Your task to perform on an android device: Open Youtube and go to the subscriptions tab Image 0: 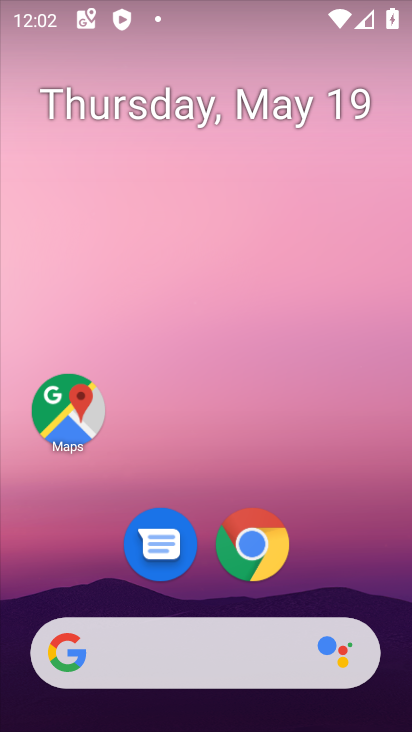
Step 0: drag from (217, 637) to (153, 143)
Your task to perform on an android device: Open Youtube and go to the subscriptions tab Image 1: 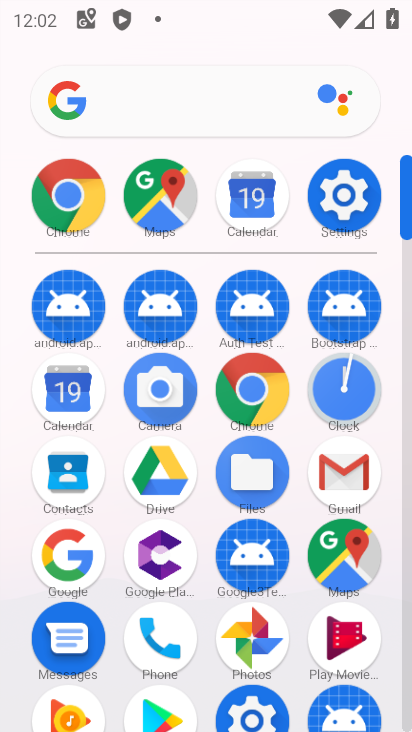
Step 1: click (406, 390)
Your task to perform on an android device: Open Youtube and go to the subscriptions tab Image 2: 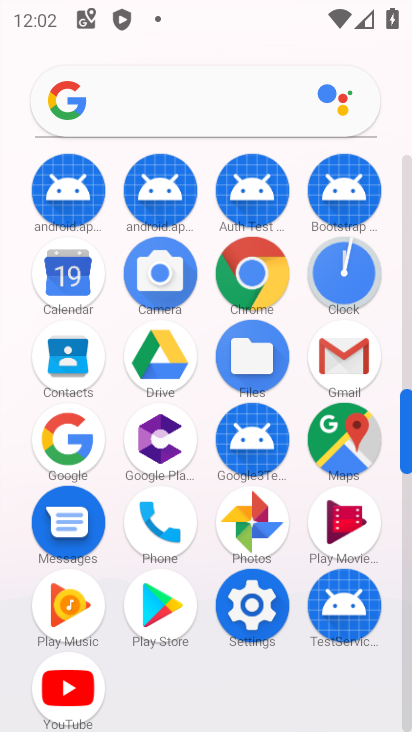
Step 2: click (70, 685)
Your task to perform on an android device: Open Youtube and go to the subscriptions tab Image 3: 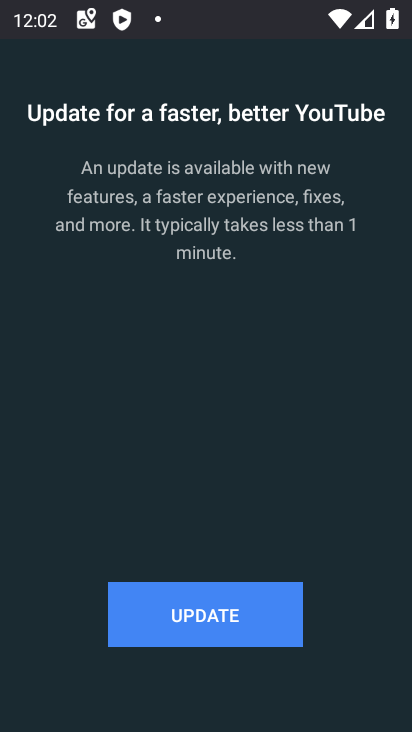
Step 3: click (235, 618)
Your task to perform on an android device: Open Youtube and go to the subscriptions tab Image 4: 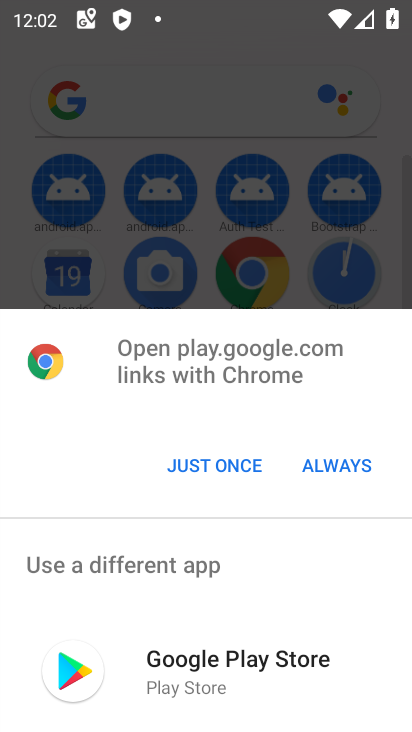
Step 4: click (240, 663)
Your task to perform on an android device: Open Youtube and go to the subscriptions tab Image 5: 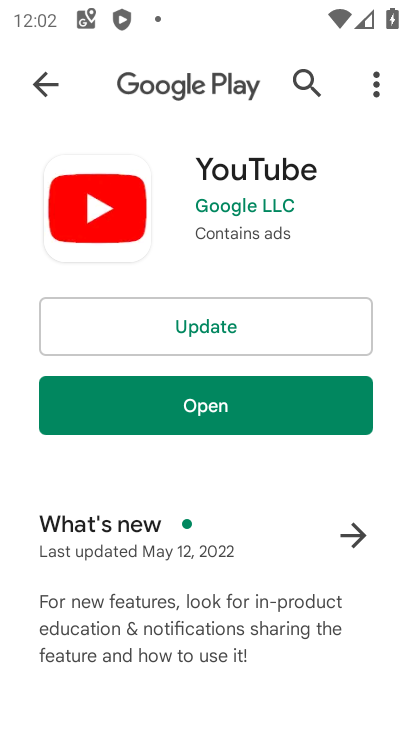
Step 5: click (255, 330)
Your task to perform on an android device: Open Youtube and go to the subscriptions tab Image 6: 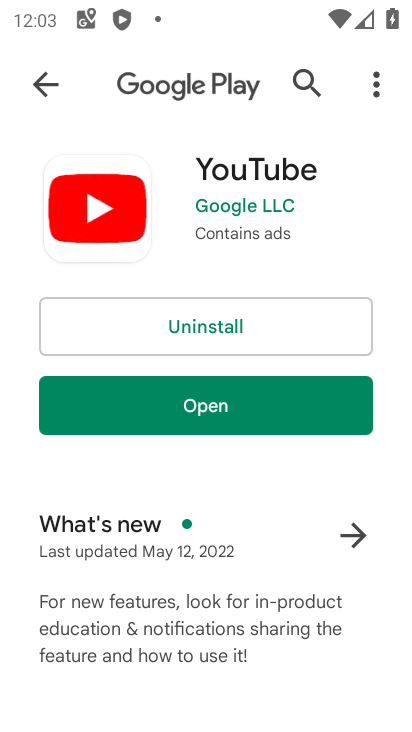
Step 6: click (193, 406)
Your task to perform on an android device: Open Youtube and go to the subscriptions tab Image 7: 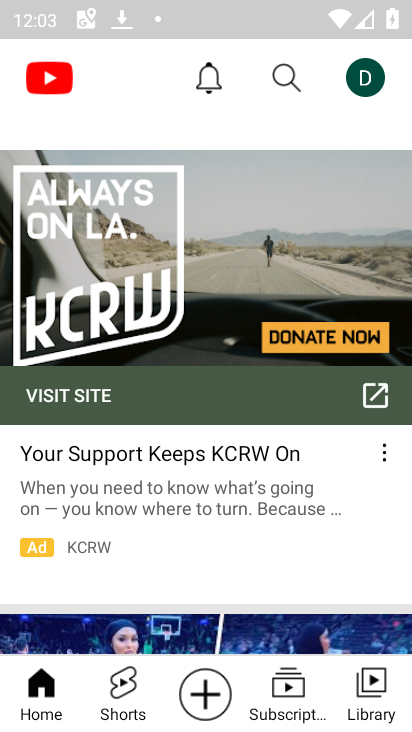
Step 7: click (295, 703)
Your task to perform on an android device: Open Youtube and go to the subscriptions tab Image 8: 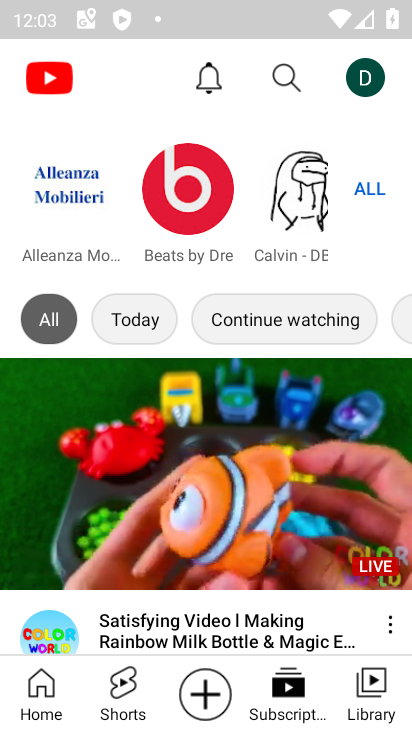
Step 8: click (369, 86)
Your task to perform on an android device: Open Youtube and go to the subscriptions tab Image 9: 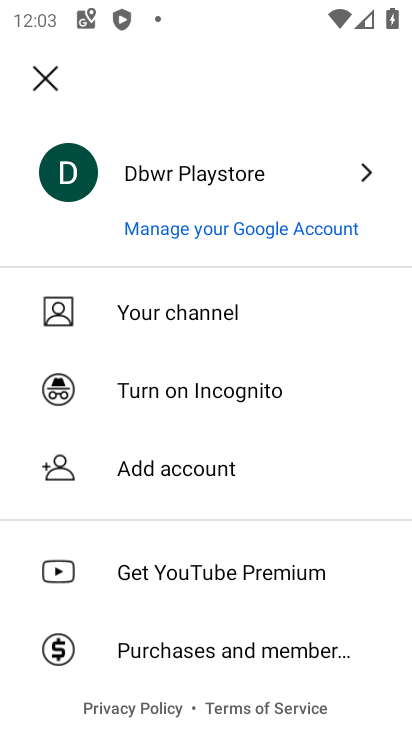
Step 9: drag from (375, 579) to (333, 267)
Your task to perform on an android device: Open Youtube and go to the subscriptions tab Image 10: 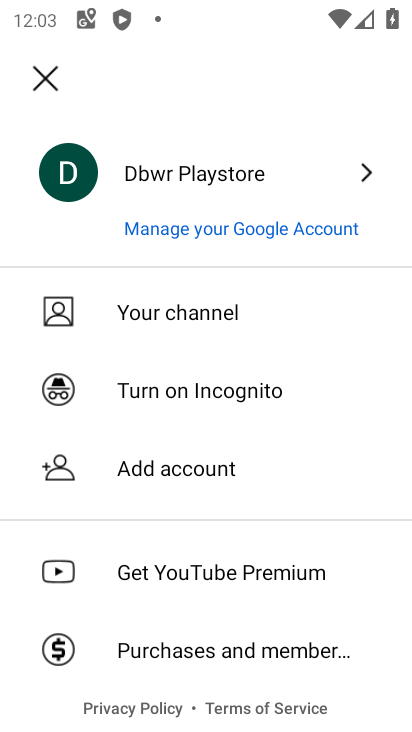
Step 10: click (63, 76)
Your task to perform on an android device: Open Youtube and go to the subscriptions tab Image 11: 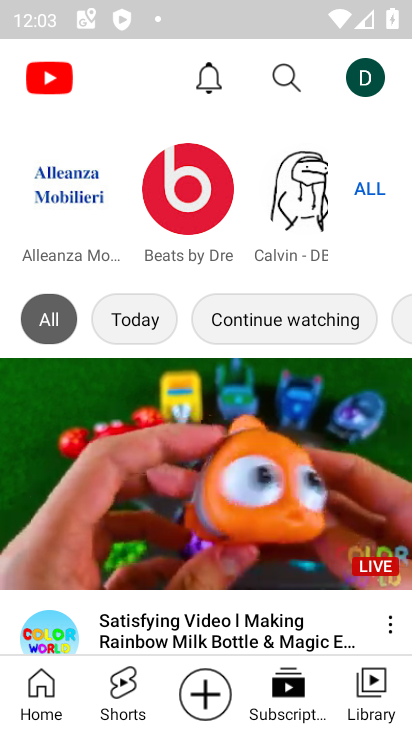
Step 11: click (292, 689)
Your task to perform on an android device: Open Youtube and go to the subscriptions tab Image 12: 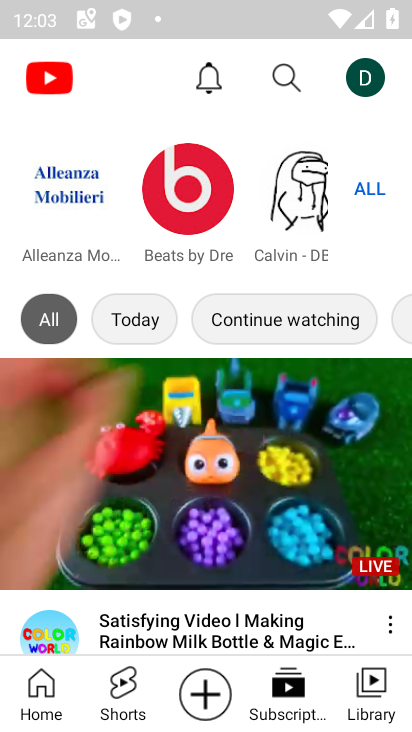
Step 12: task complete